Your task to perform on an android device: change notifications settings Image 0: 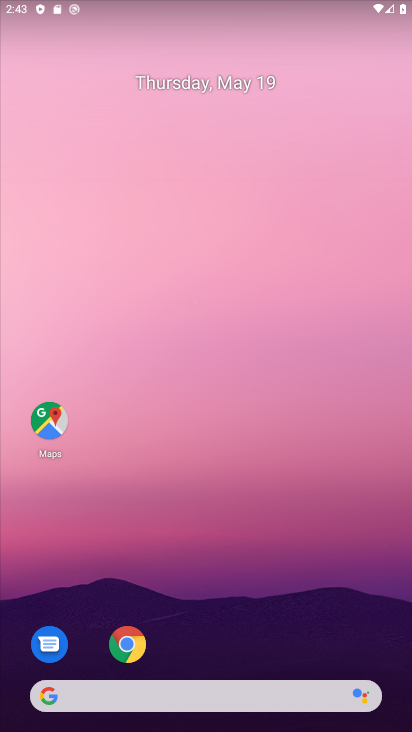
Step 0: drag from (299, 619) to (289, 211)
Your task to perform on an android device: change notifications settings Image 1: 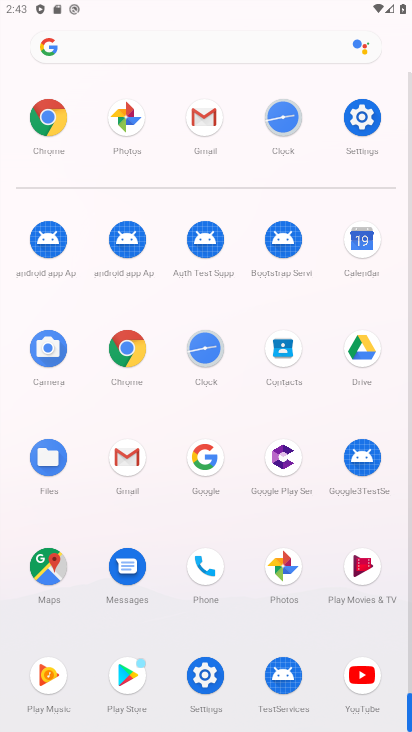
Step 1: click (344, 117)
Your task to perform on an android device: change notifications settings Image 2: 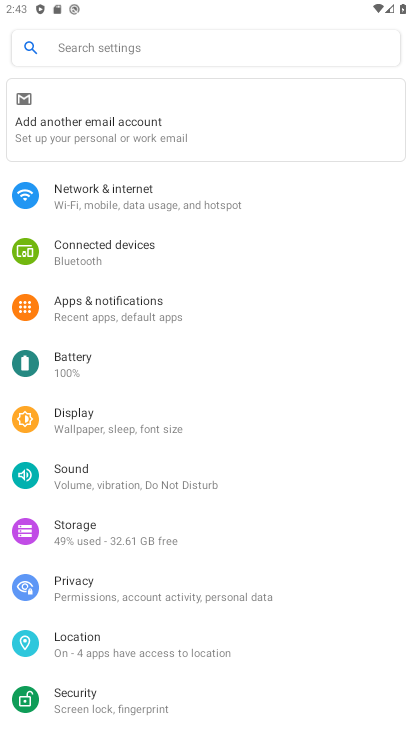
Step 2: click (149, 307)
Your task to perform on an android device: change notifications settings Image 3: 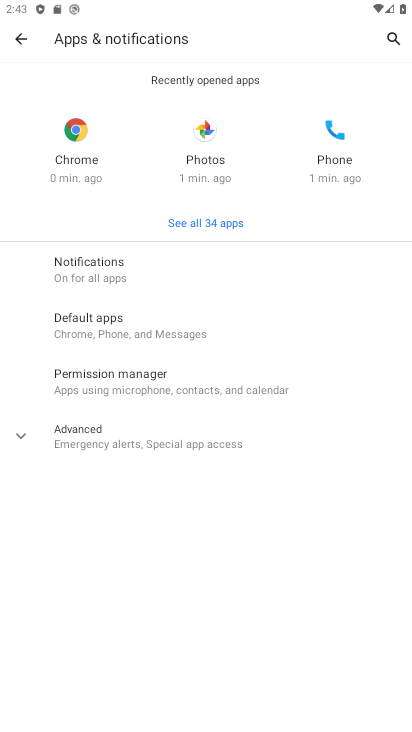
Step 3: click (190, 221)
Your task to perform on an android device: change notifications settings Image 4: 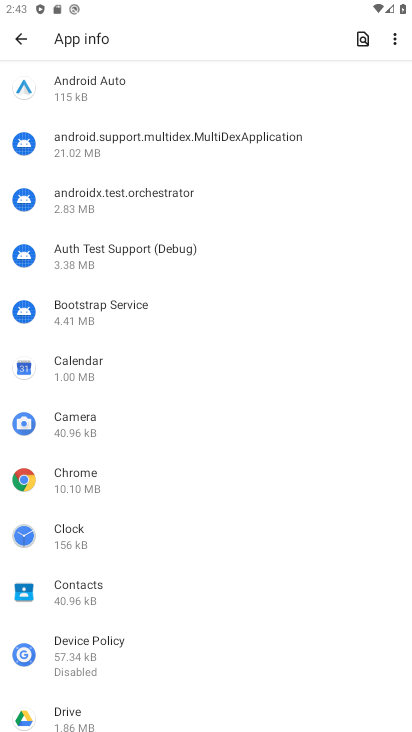
Step 4: click (26, 39)
Your task to perform on an android device: change notifications settings Image 5: 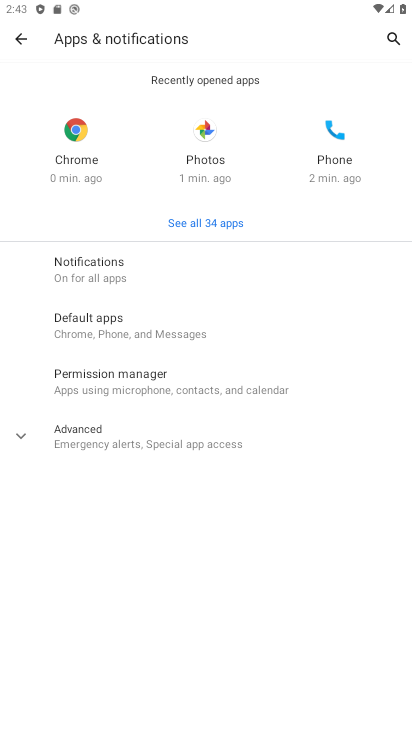
Step 5: click (128, 265)
Your task to perform on an android device: change notifications settings Image 6: 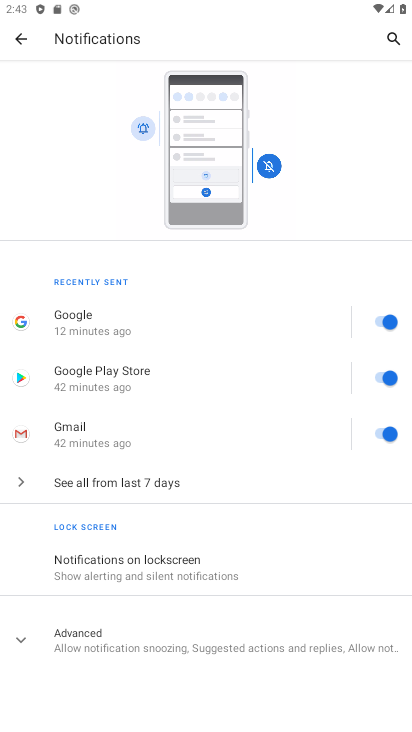
Step 6: click (159, 483)
Your task to perform on an android device: change notifications settings Image 7: 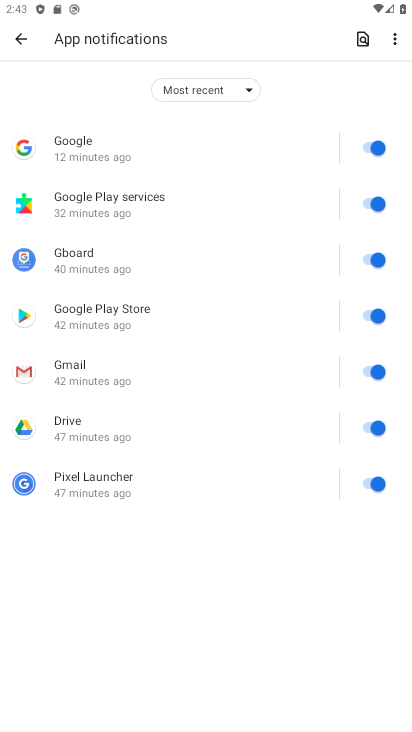
Step 7: click (374, 140)
Your task to perform on an android device: change notifications settings Image 8: 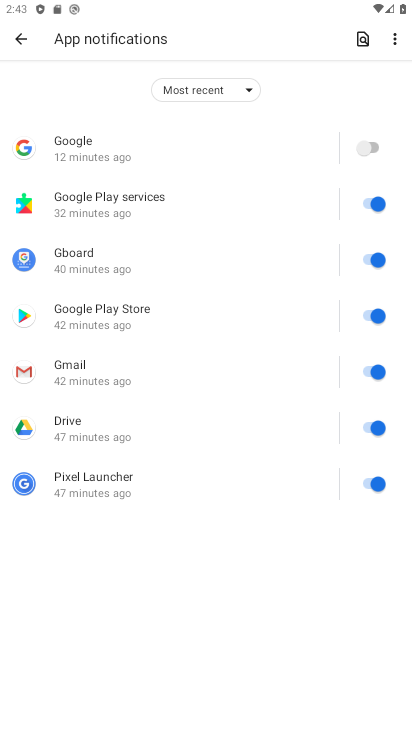
Step 8: click (368, 188)
Your task to perform on an android device: change notifications settings Image 9: 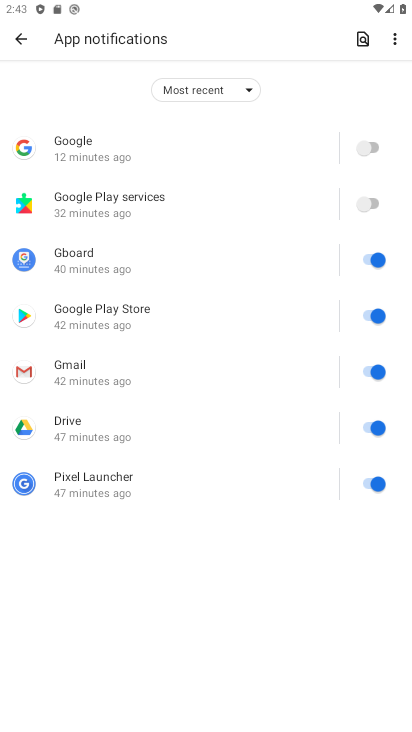
Step 9: click (372, 252)
Your task to perform on an android device: change notifications settings Image 10: 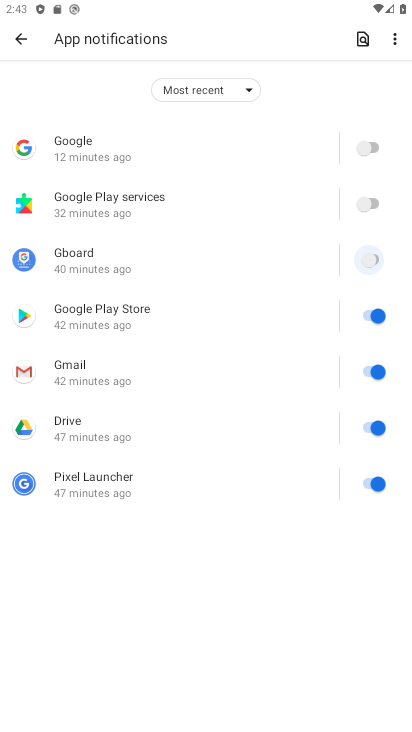
Step 10: click (373, 304)
Your task to perform on an android device: change notifications settings Image 11: 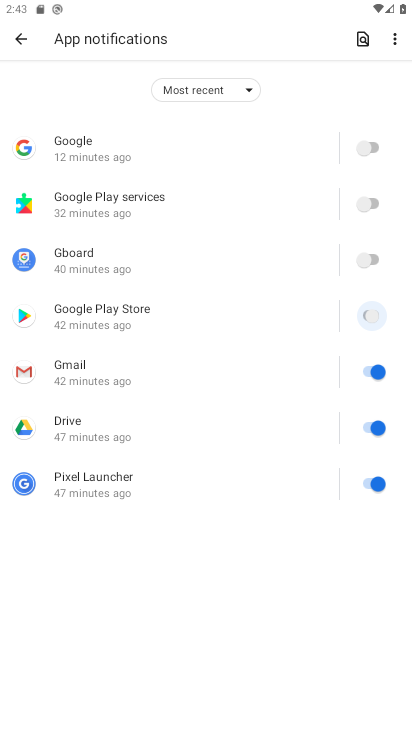
Step 11: click (362, 362)
Your task to perform on an android device: change notifications settings Image 12: 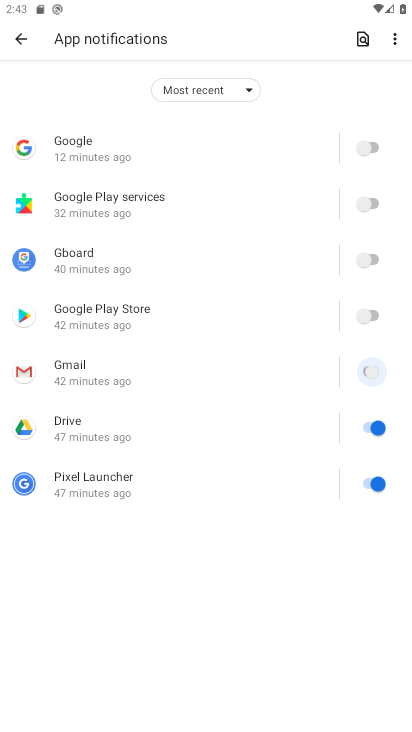
Step 12: click (373, 419)
Your task to perform on an android device: change notifications settings Image 13: 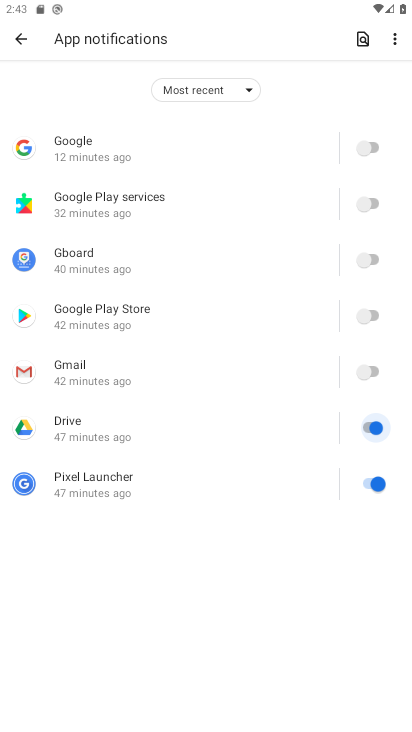
Step 13: click (380, 459)
Your task to perform on an android device: change notifications settings Image 14: 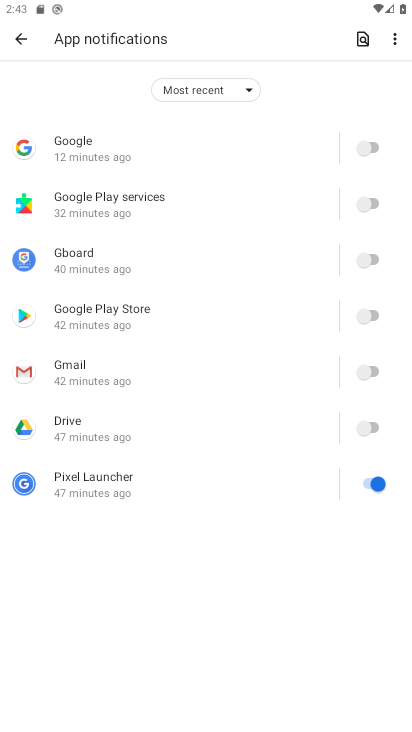
Step 14: click (379, 491)
Your task to perform on an android device: change notifications settings Image 15: 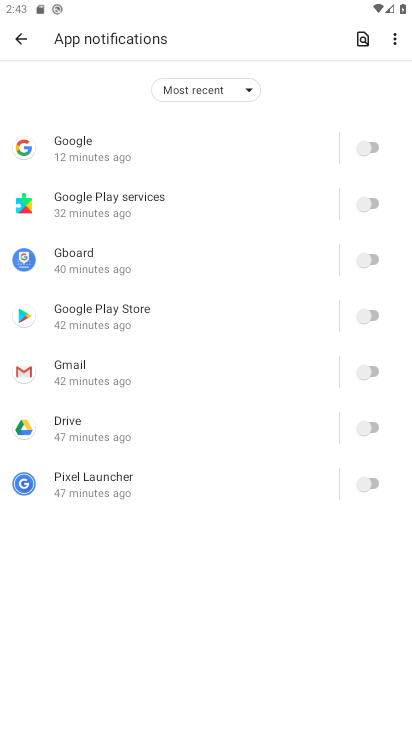
Step 15: task complete